Your task to perform on an android device: Go to Wikipedia Image 0: 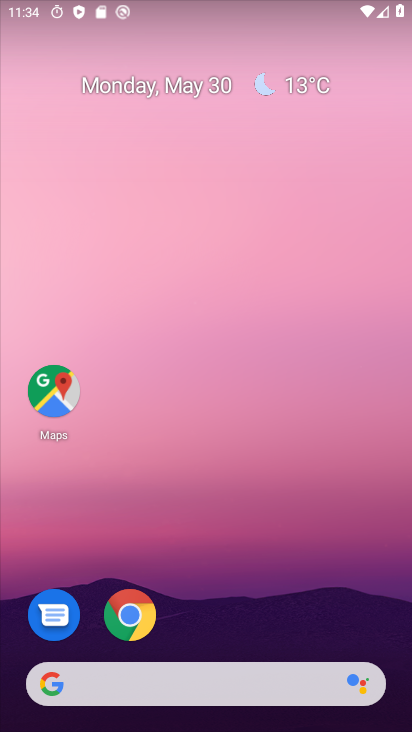
Step 0: click (138, 629)
Your task to perform on an android device: Go to Wikipedia Image 1: 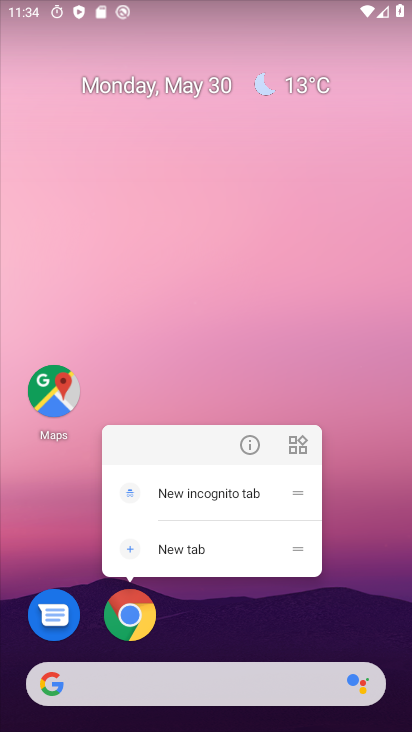
Step 1: click (138, 629)
Your task to perform on an android device: Go to Wikipedia Image 2: 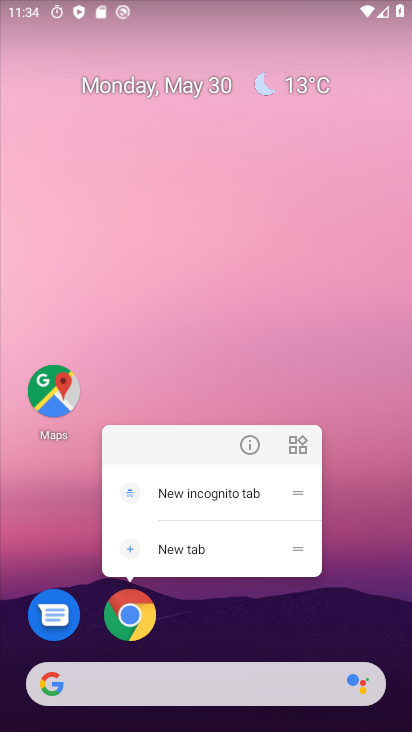
Step 2: click (138, 624)
Your task to perform on an android device: Go to Wikipedia Image 3: 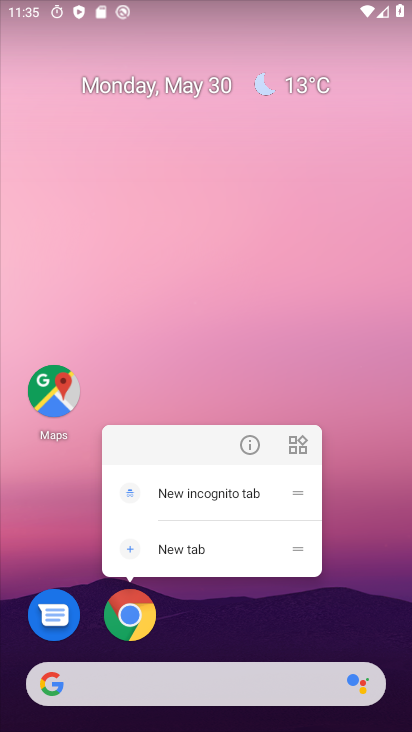
Step 3: click (124, 611)
Your task to perform on an android device: Go to Wikipedia Image 4: 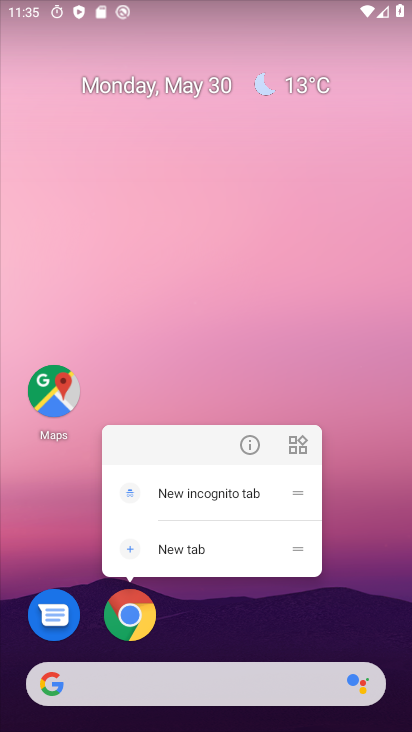
Step 4: click (120, 627)
Your task to perform on an android device: Go to Wikipedia Image 5: 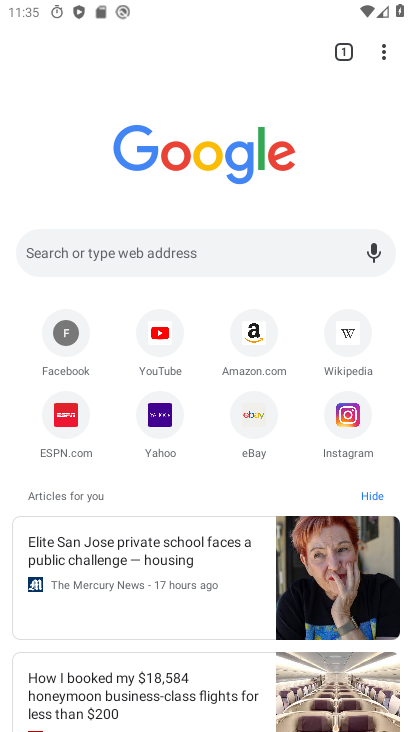
Step 5: click (335, 347)
Your task to perform on an android device: Go to Wikipedia Image 6: 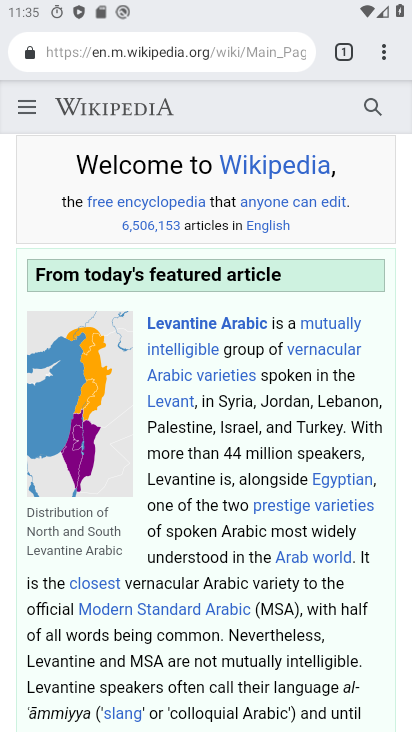
Step 6: task complete